Your task to perform on an android device: toggle wifi Image 0: 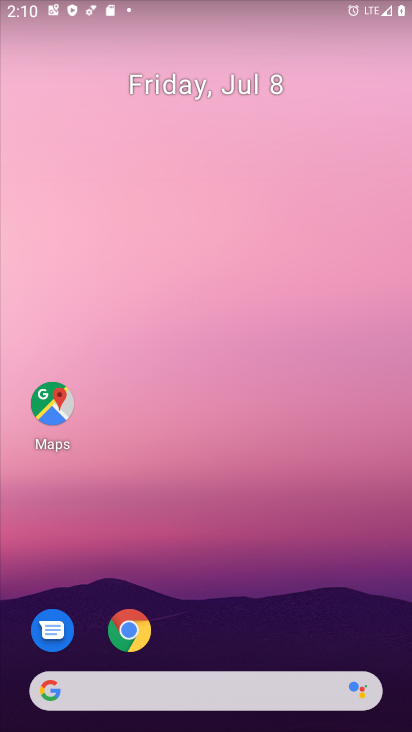
Step 0: drag from (242, 650) to (325, 41)
Your task to perform on an android device: toggle wifi Image 1: 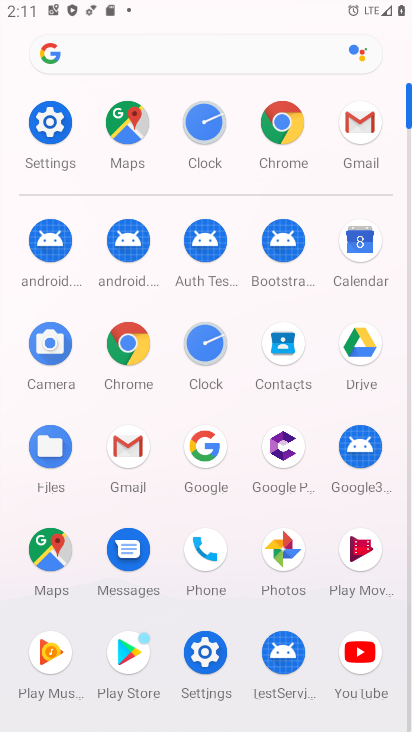
Step 1: click (52, 114)
Your task to perform on an android device: toggle wifi Image 2: 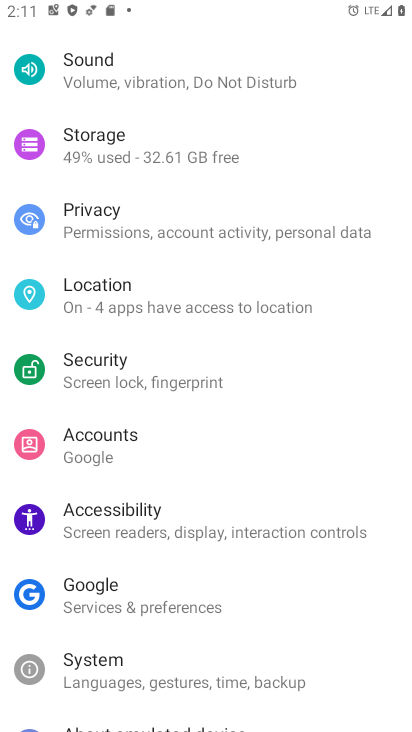
Step 2: drag from (138, 3) to (167, 417)
Your task to perform on an android device: toggle wifi Image 3: 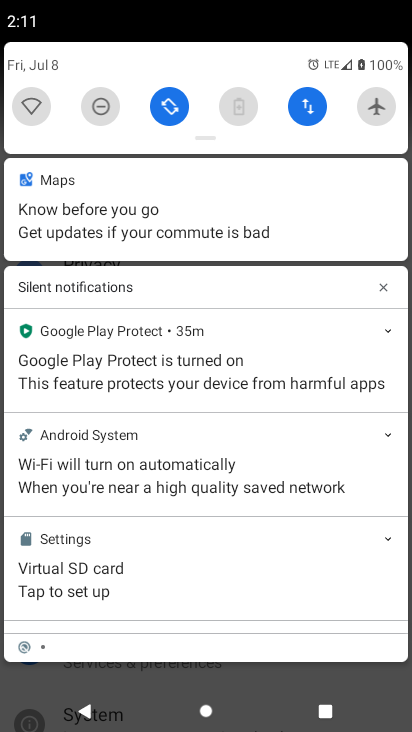
Step 3: click (32, 107)
Your task to perform on an android device: toggle wifi Image 4: 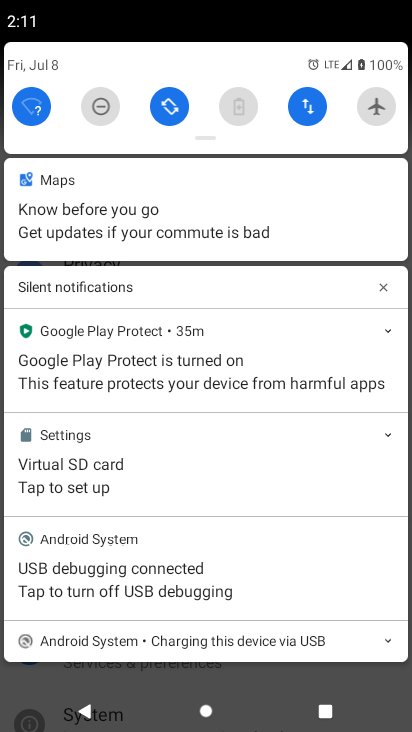
Step 4: task complete